Your task to perform on an android device: Go to notification settings Image 0: 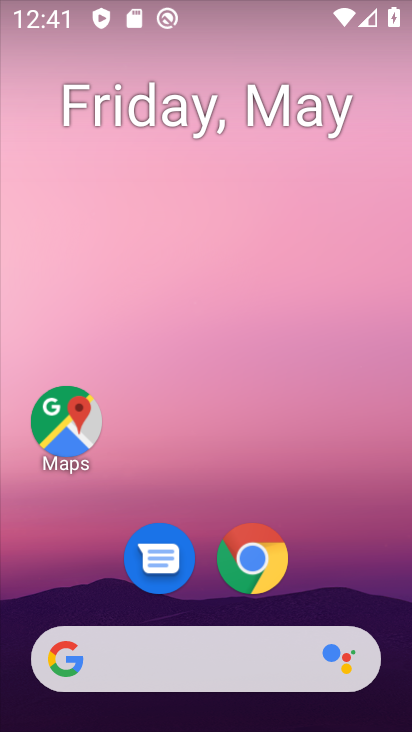
Step 0: drag from (371, 594) to (251, 181)
Your task to perform on an android device: Go to notification settings Image 1: 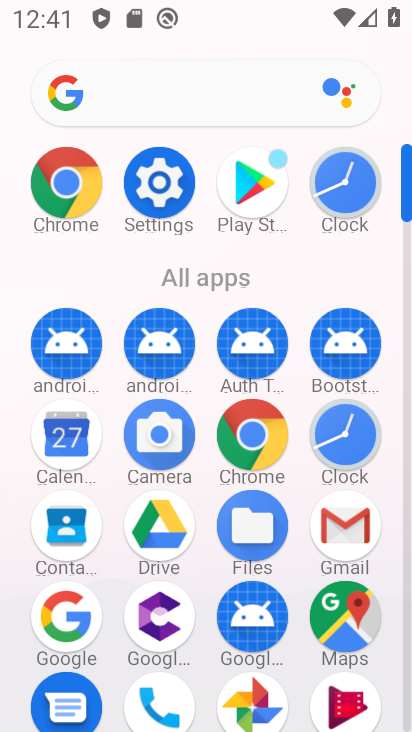
Step 1: click (153, 198)
Your task to perform on an android device: Go to notification settings Image 2: 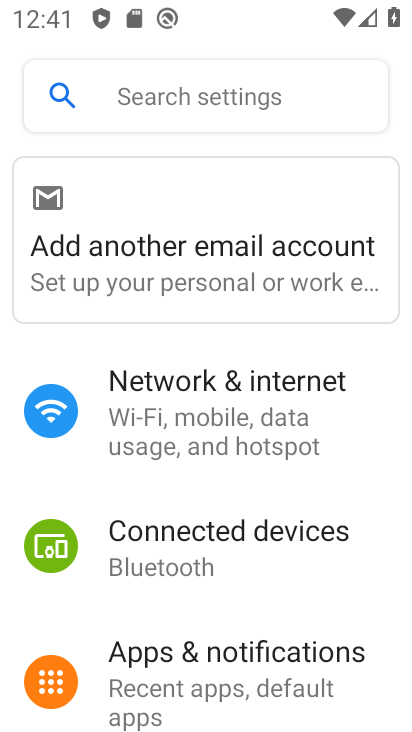
Step 2: click (219, 672)
Your task to perform on an android device: Go to notification settings Image 3: 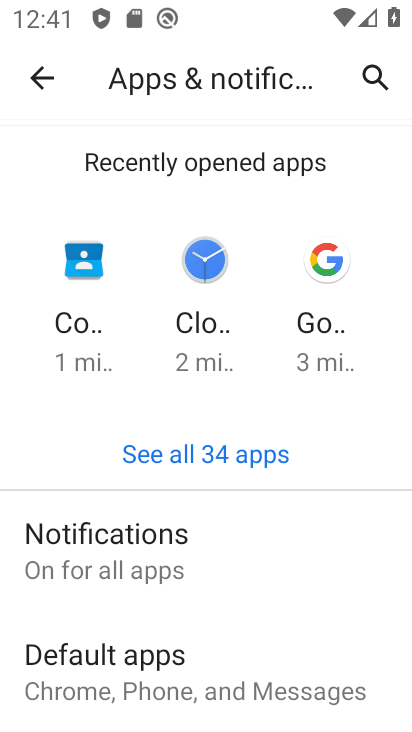
Step 3: click (182, 545)
Your task to perform on an android device: Go to notification settings Image 4: 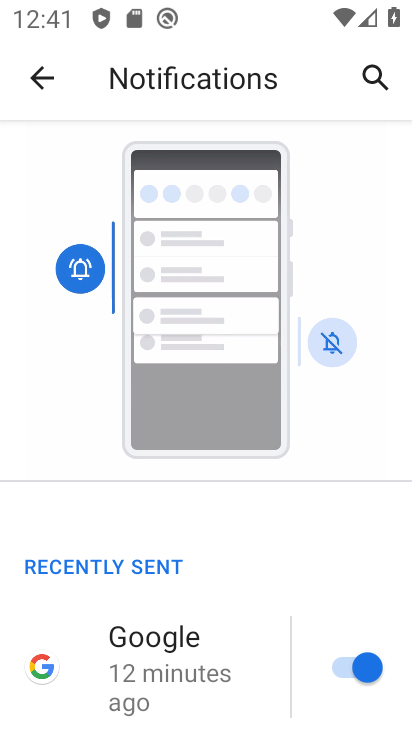
Step 4: task complete